Your task to perform on an android device: empty trash in google photos Image 0: 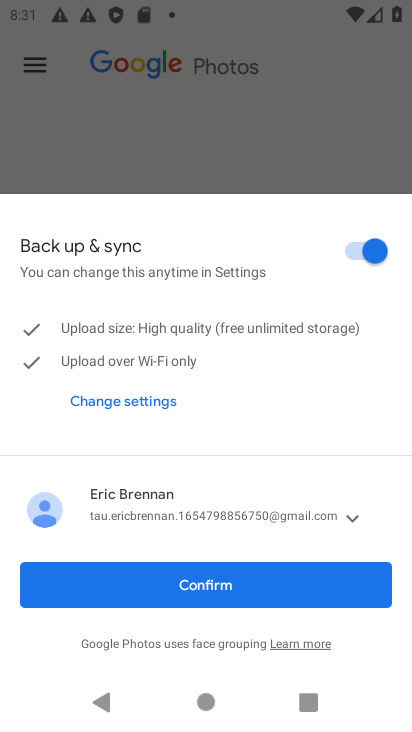
Step 0: click (293, 572)
Your task to perform on an android device: empty trash in google photos Image 1: 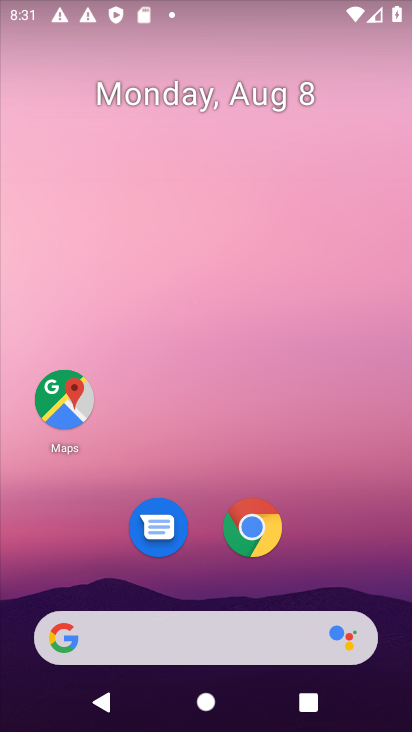
Step 1: drag from (370, 681) to (166, 0)
Your task to perform on an android device: empty trash in google photos Image 2: 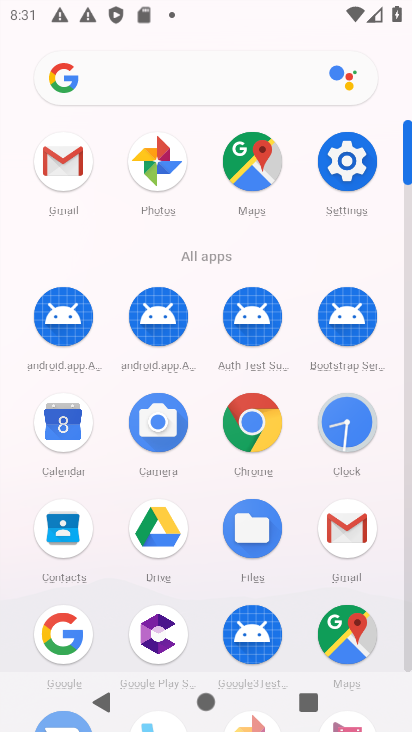
Step 2: click (144, 162)
Your task to perform on an android device: empty trash in google photos Image 3: 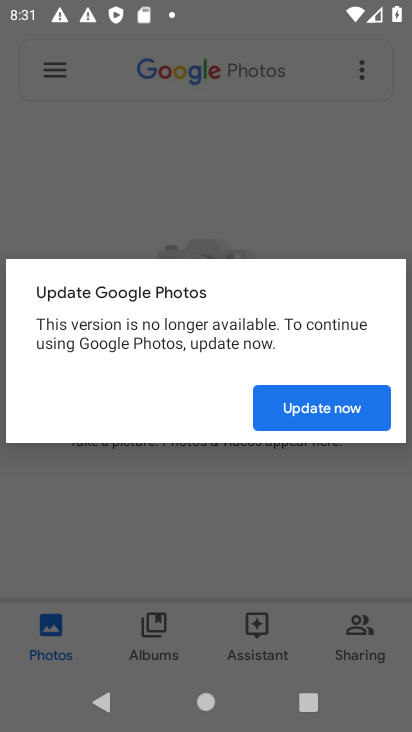
Step 3: click (312, 404)
Your task to perform on an android device: empty trash in google photos Image 4: 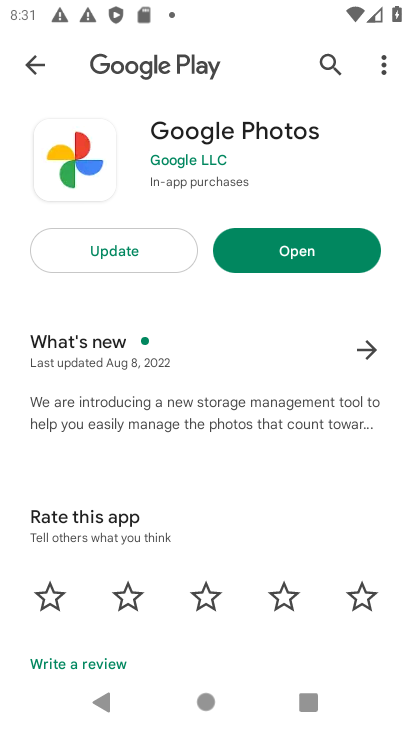
Step 4: click (101, 260)
Your task to perform on an android device: empty trash in google photos Image 5: 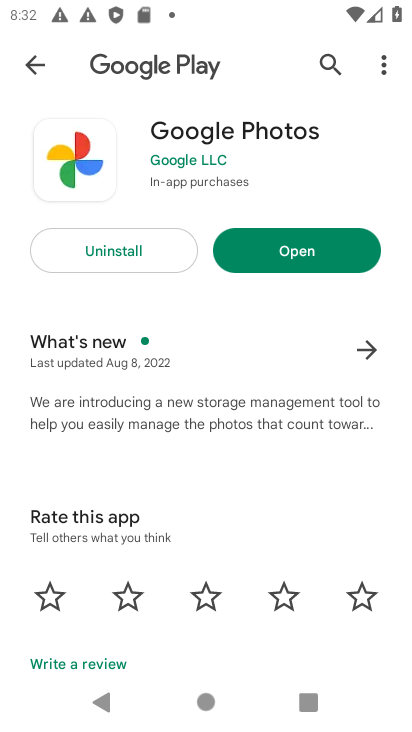
Step 5: click (297, 236)
Your task to perform on an android device: empty trash in google photos Image 6: 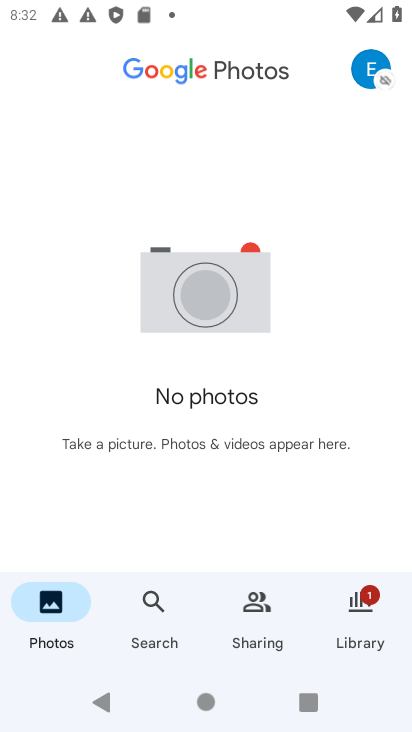
Step 6: click (373, 64)
Your task to perform on an android device: empty trash in google photos Image 7: 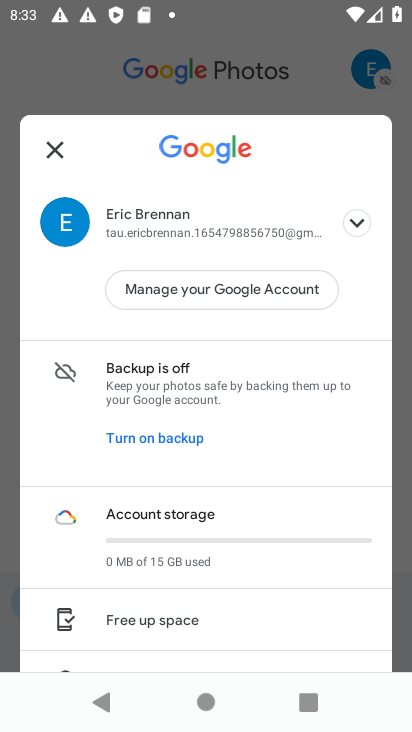
Step 7: task complete